Your task to perform on an android device: check google app version Image 0: 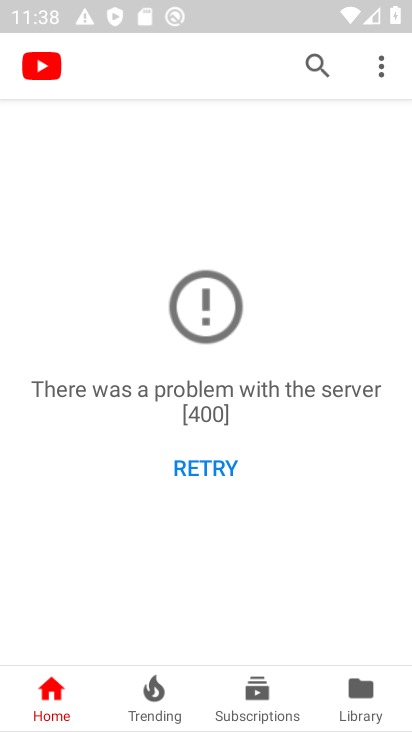
Step 0: press home button
Your task to perform on an android device: check google app version Image 1: 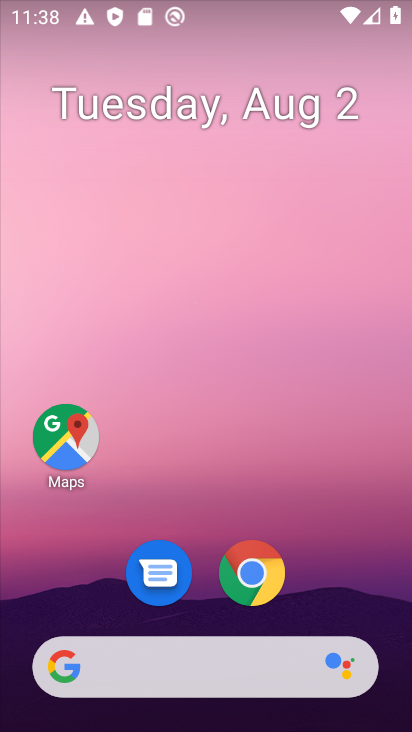
Step 1: drag from (214, 586) to (220, 141)
Your task to perform on an android device: check google app version Image 2: 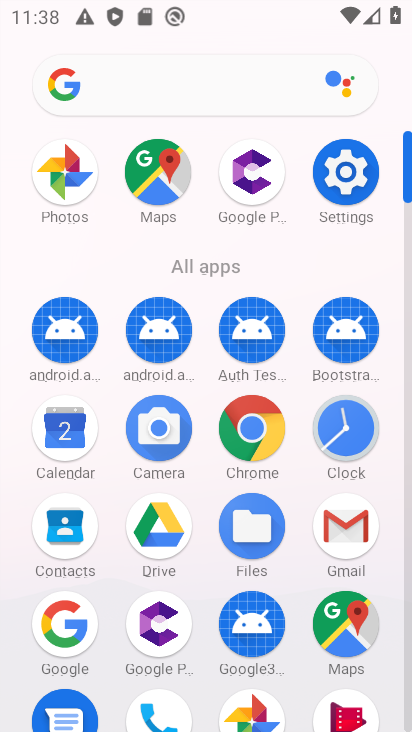
Step 2: drag from (187, 510) to (248, 141)
Your task to perform on an android device: check google app version Image 3: 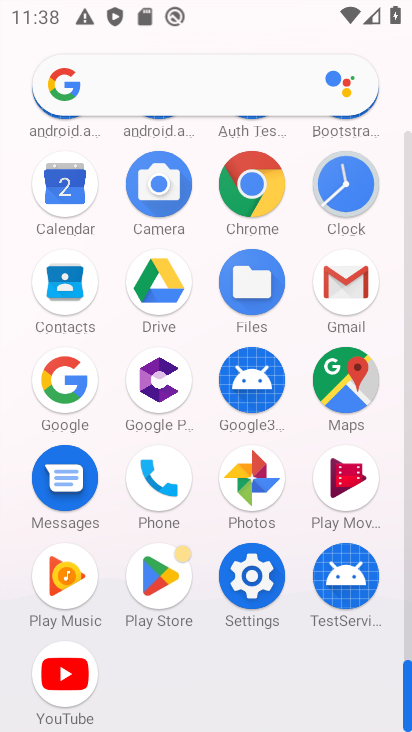
Step 3: click (62, 395)
Your task to perform on an android device: check google app version Image 4: 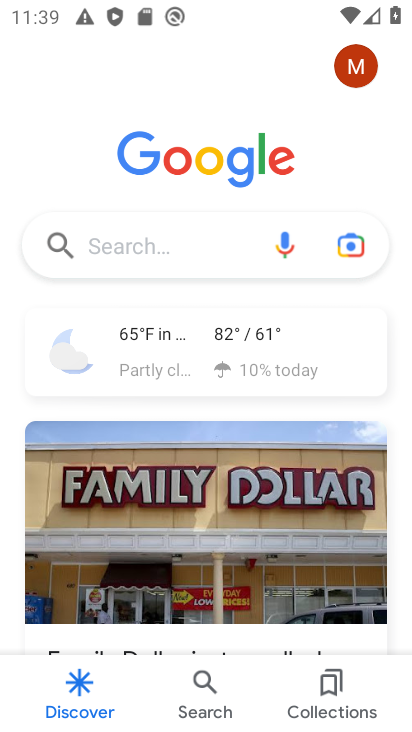
Step 4: click (364, 62)
Your task to perform on an android device: check google app version Image 5: 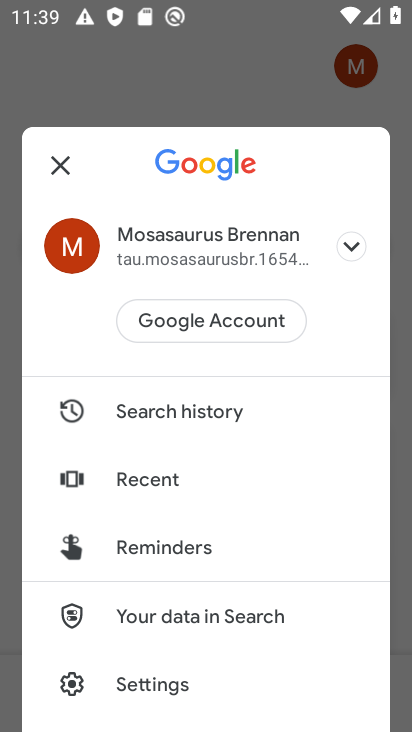
Step 5: drag from (169, 589) to (172, 149)
Your task to perform on an android device: check google app version Image 6: 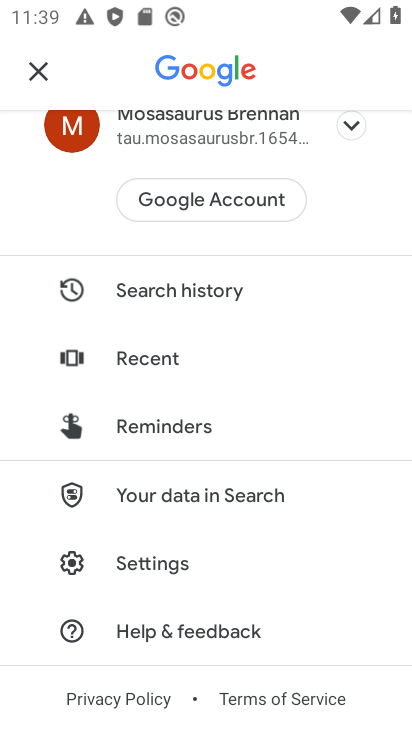
Step 6: click (144, 567)
Your task to perform on an android device: check google app version Image 7: 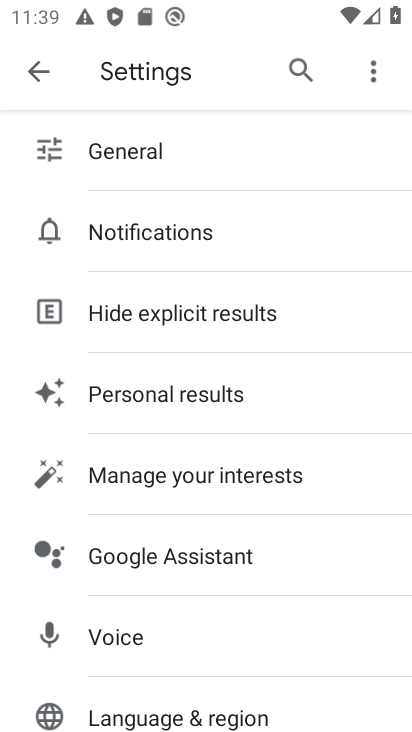
Step 7: drag from (197, 640) to (253, 1)
Your task to perform on an android device: check google app version Image 8: 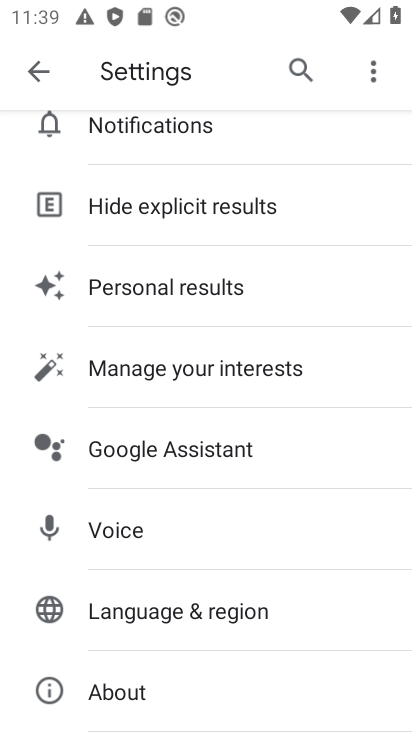
Step 8: click (106, 698)
Your task to perform on an android device: check google app version Image 9: 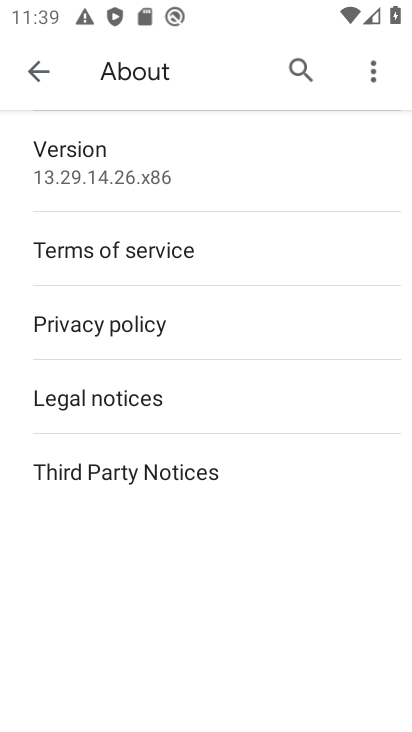
Step 9: click (220, 175)
Your task to perform on an android device: check google app version Image 10: 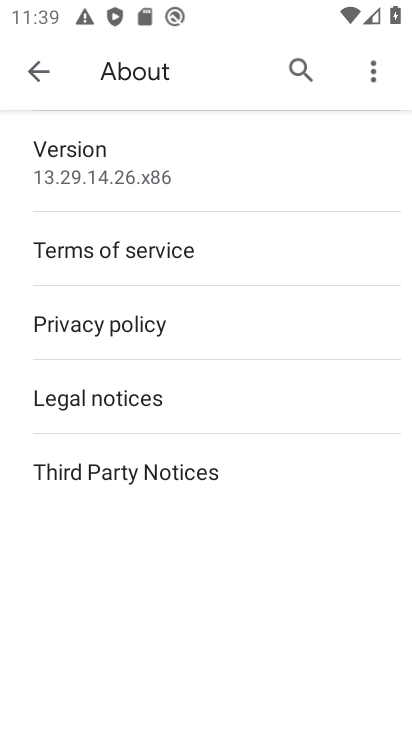
Step 10: click (205, 177)
Your task to perform on an android device: check google app version Image 11: 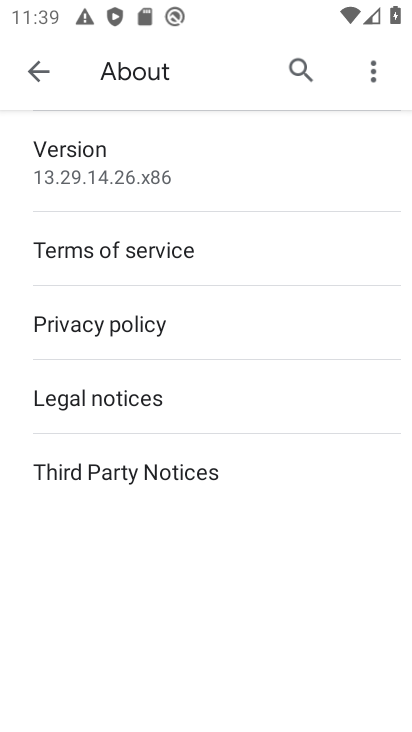
Step 11: task complete